Your task to perform on an android device: toggle airplane mode Image 0: 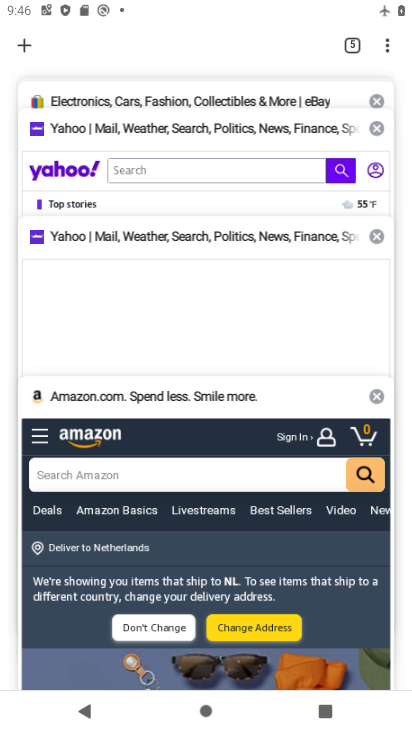
Step 0: press home button
Your task to perform on an android device: toggle airplane mode Image 1: 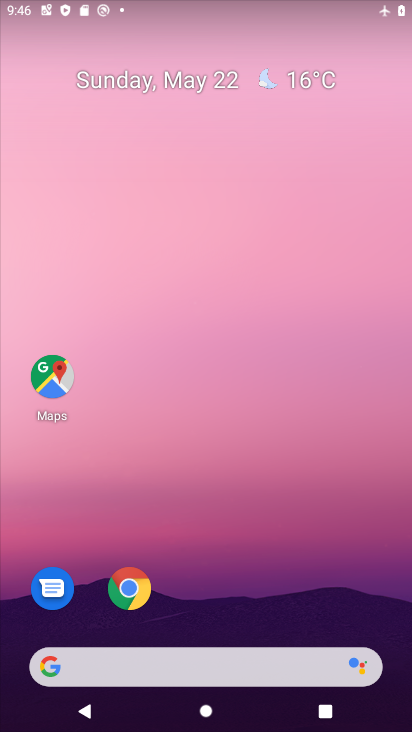
Step 1: drag from (184, 612) to (172, 162)
Your task to perform on an android device: toggle airplane mode Image 2: 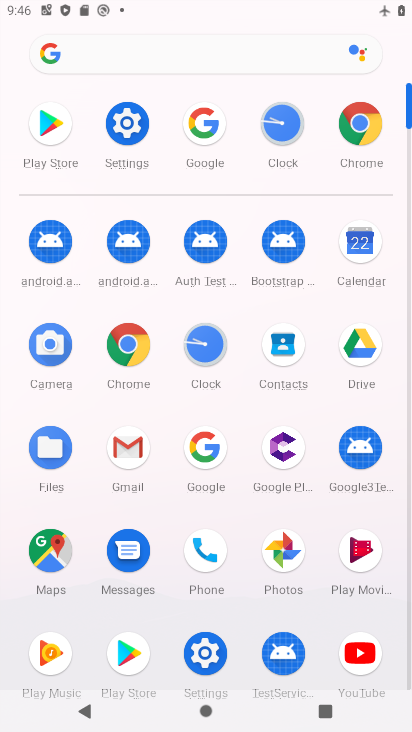
Step 2: click (129, 139)
Your task to perform on an android device: toggle airplane mode Image 3: 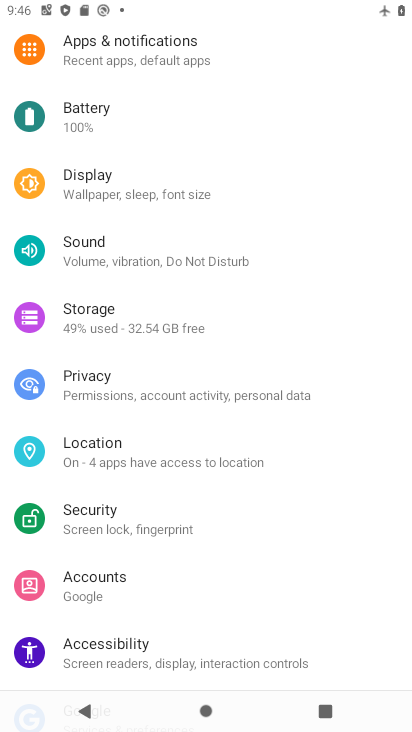
Step 3: drag from (168, 212) to (166, 414)
Your task to perform on an android device: toggle airplane mode Image 4: 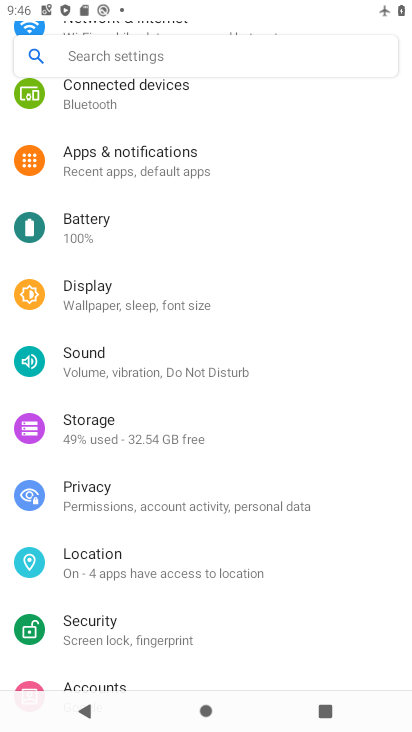
Step 4: drag from (221, 189) to (227, 517)
Your task to perform on an android device: toggle airplane mode Image 5: 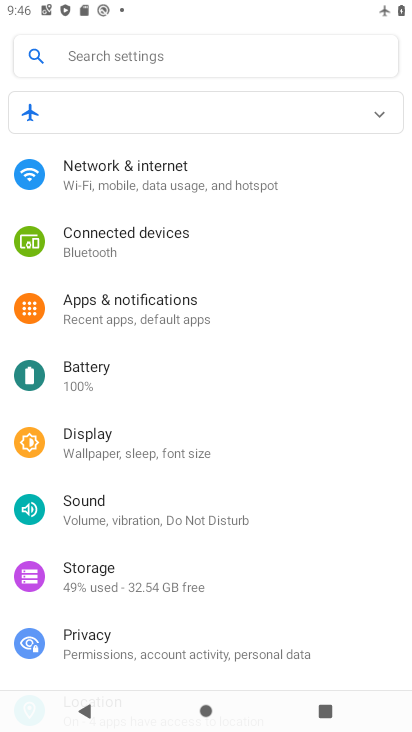
Step 5: click (180, 160)
Your task to perform on an android device: toggle airplane mode Image 6: 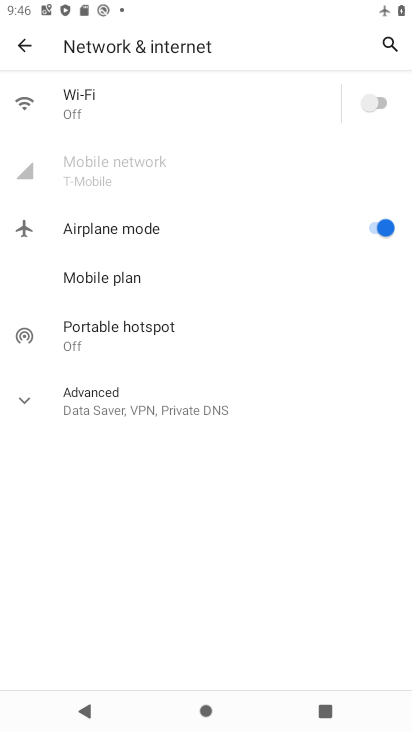
Step 6: click (369, 227)
Your task to perform on an android device: toggle airplane mode Image 7: 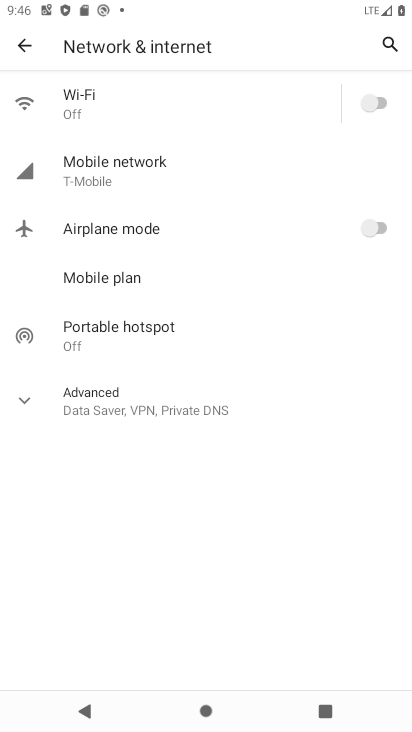
Step 7: task complete